Your task to perform on an android device: toggle translation in the chrome app Image 0: 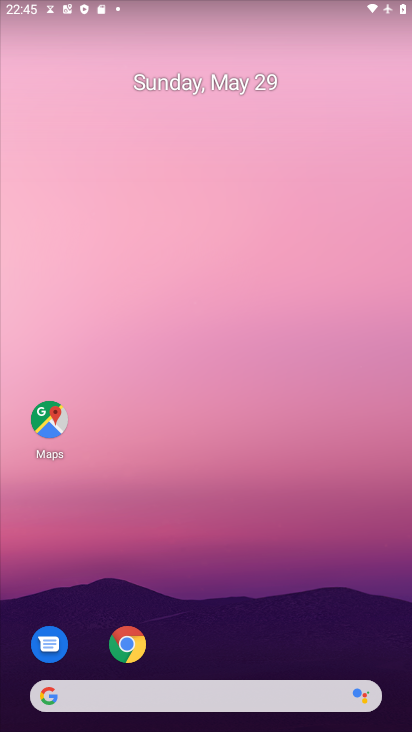
Step 0: drag from (261, 626) to (234, 219)
Your task to perform on an android device: toggle translation in the chrome app Image 1: 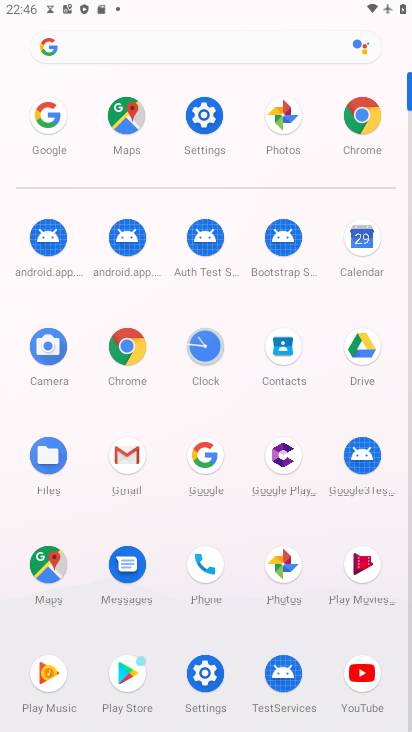
Step 1: click (123, 330)
Your task to perform on an android device: toggle translation in the chrome app Image 2: 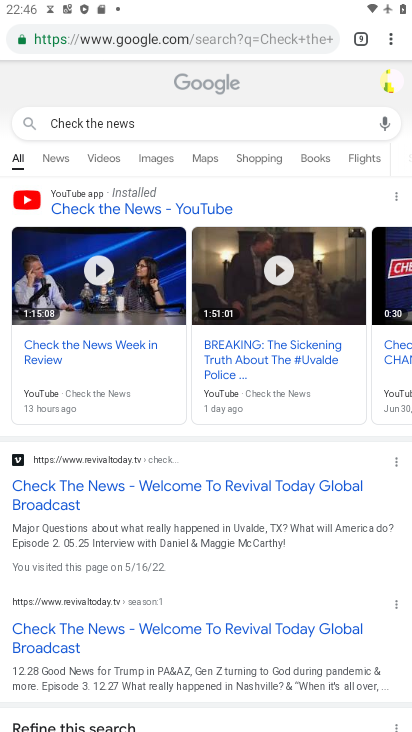
Step 2: click (388, 37)
Your task to perform on an android device: toggle translation in the chrome app Image 3: 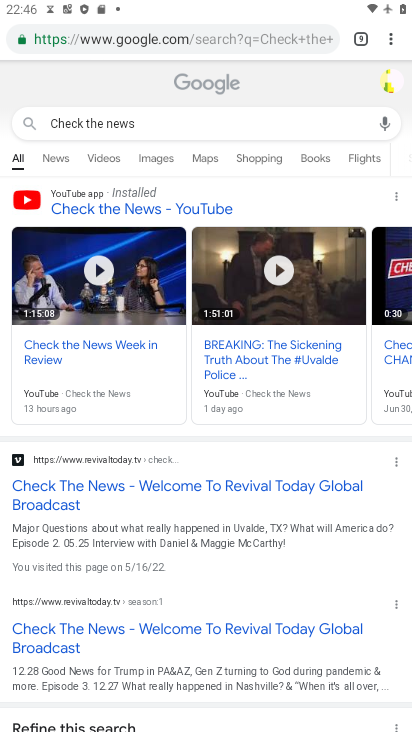
Step 3: click (394, 43)
Your task to perform on an android device: toggle translation in the chrome app Image 4: 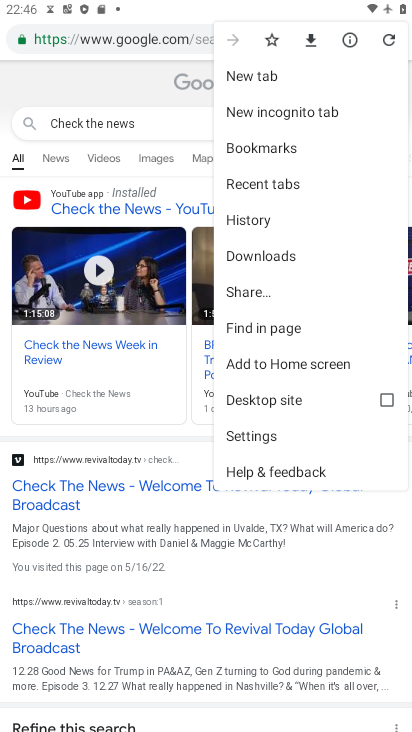
Step 4: click (262, 438)
Your task to perform on an android device: toggle translation in the chrome app Image 5: 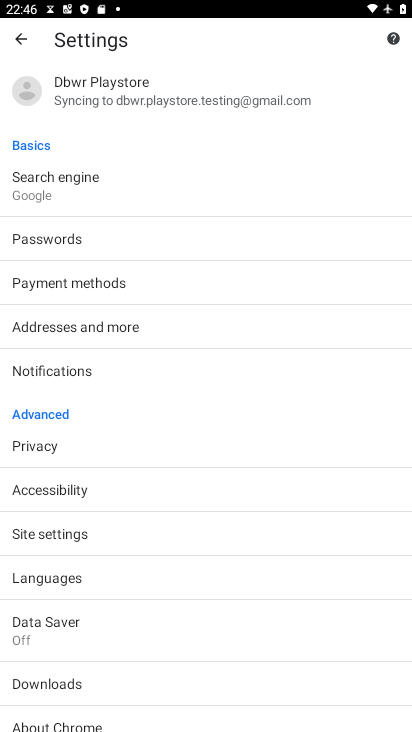
Step 5: drag from (148, 610) to (166, 334)
Your task to perform on an android device: toggle translation in the chrome app Image 6: 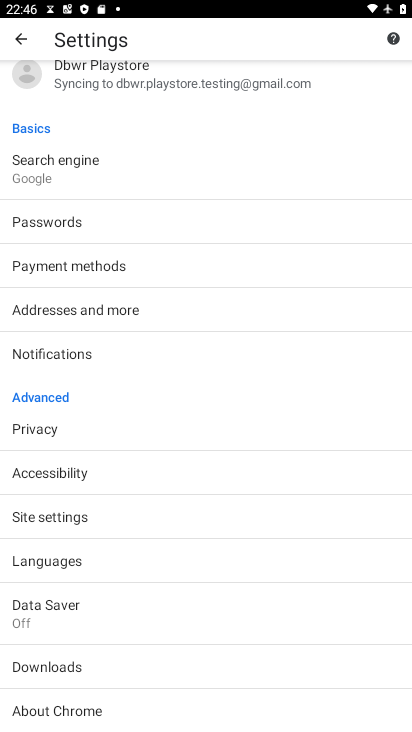
Step 6: drag from (245, 537) to (282, 258)
Your task to perform on an android device: toggle translation in the chrome app Image 7: 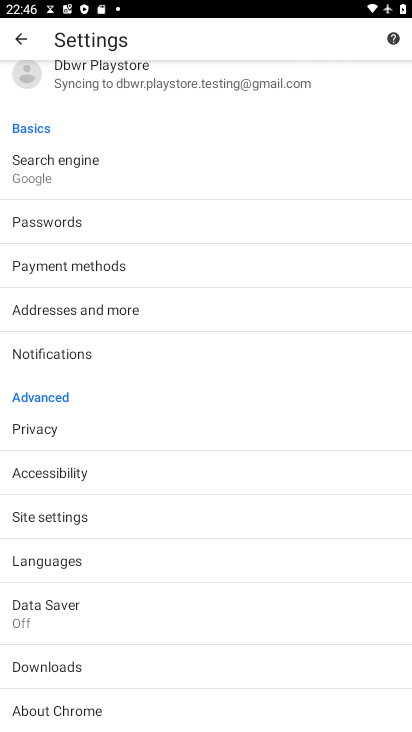
Step 7: click (100, 567)
Your task to perform on an android device: toggle translation in the chrome app Image 8: 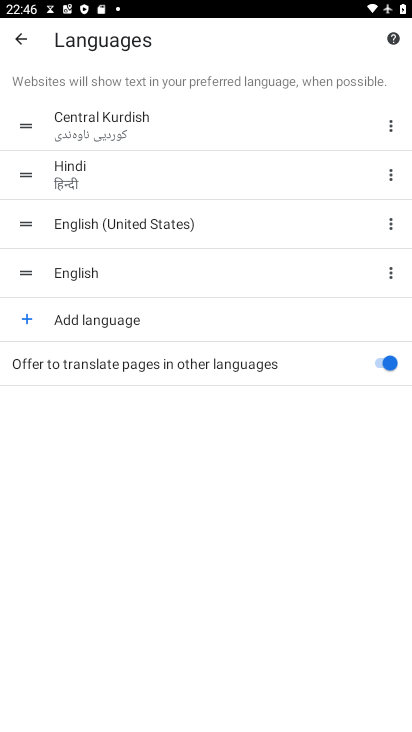
Step 8: click (388, 369)
Your task to perform on an android device: toggle translation in the chrome app Image 9: 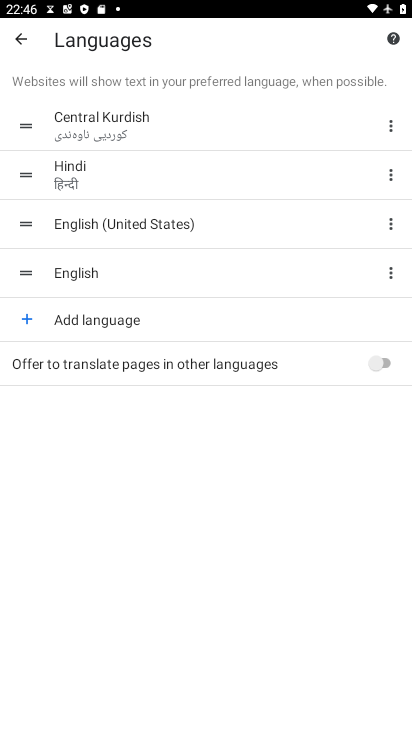
Step 9: task complete